Your task to perform on an android device: turn on sleep mode Image 0: 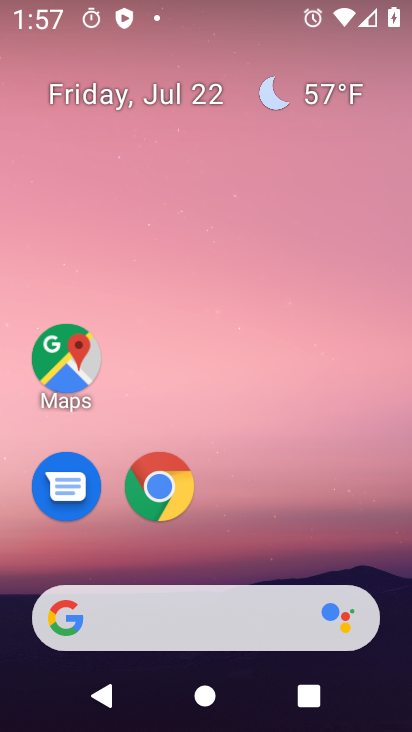
Step 0: drag from (361, 519) to (363, 143)
Your task to perform on an android device: turn on sleep mode Image 1: 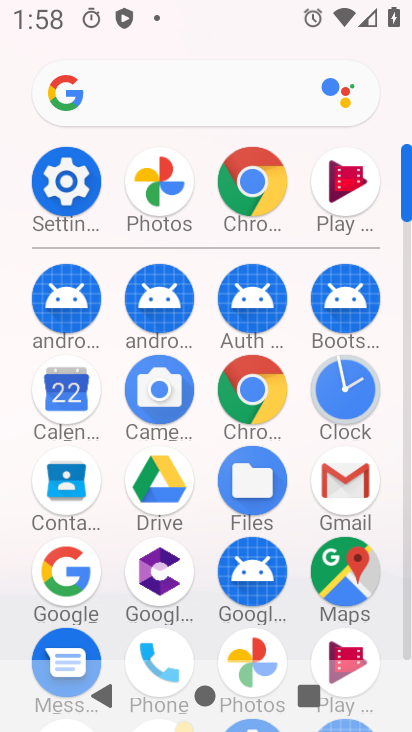
Step 1: click (80, 192)
Your task to perform on an android device: turn on sleep mode Image 2: 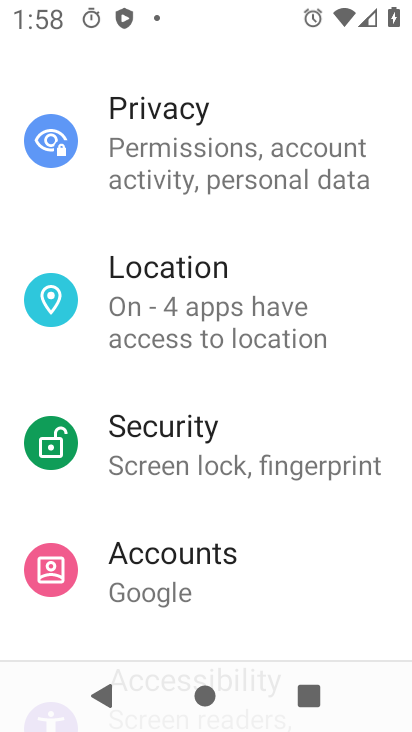
Step 2: drag from (333, 242) to (346, 313)
Your task to perform on an android device: turn on sleep mode Image 3: 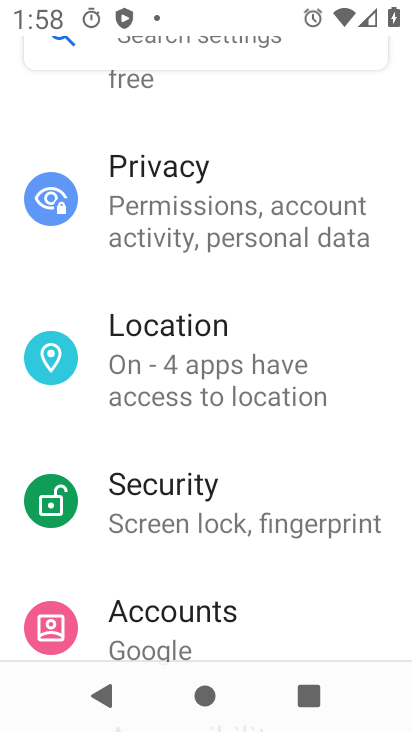
Step 3: drag from (378, 187) to (385, 276)
Your task to perform on an android device: turn on sleep mode Image 4: 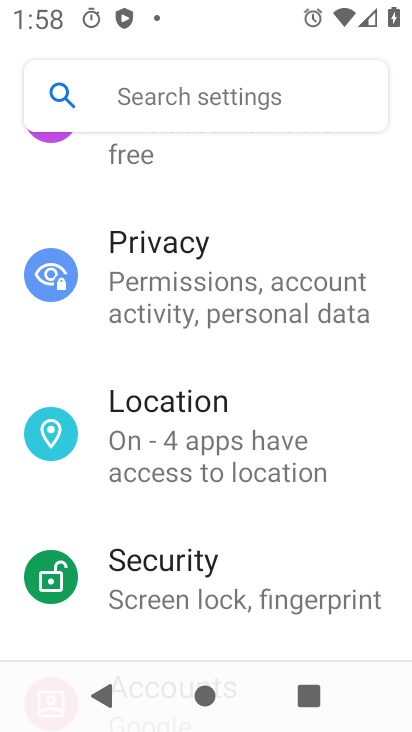
Step 4: drag from (378, 174) to (372, 264)
Your task to perform on an android device: turn on sleep mode Image 5: 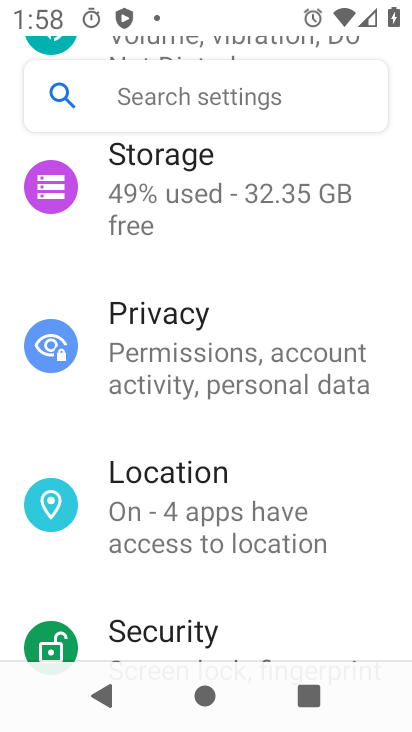
Step 5: drag from (377, 175) to (380, 270)
Your task to perform on an android device: turn on sleep mode Image 6: 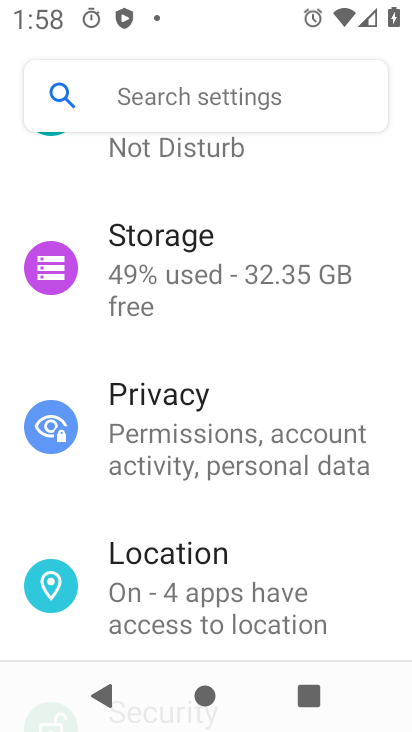
Step 6: drag from (372, 190) to (368, 292)
Your task to perform on an android device: turn on sleep mode Image 7: 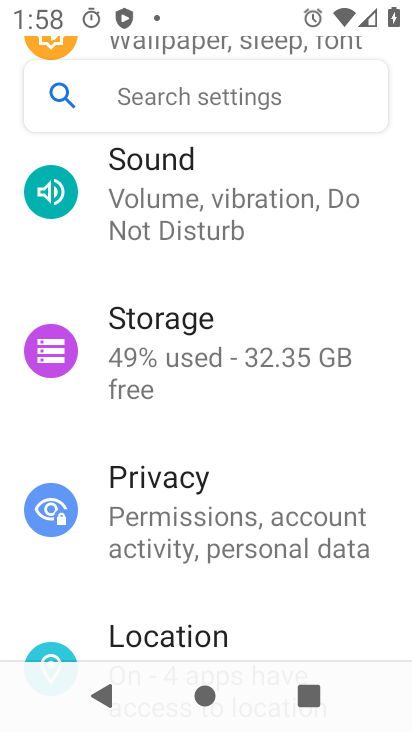
Step 7: drag from (373, 203) to (374, 278)
Your task to perform on an android device: turn on sleep mode Image 8: 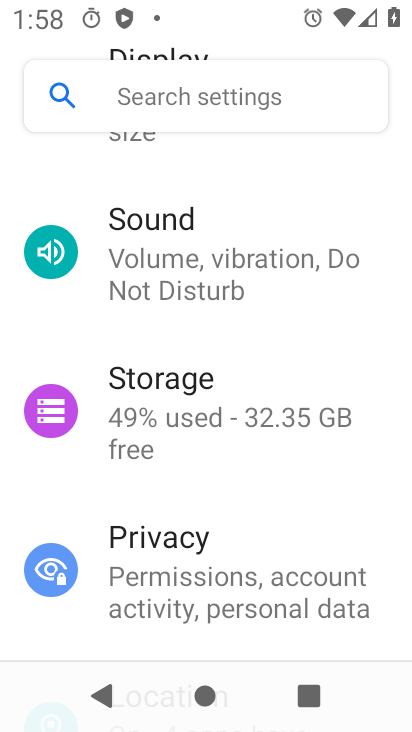
Step 8: drag from (375, 181) to (374, 278)
Your task to perform on an android device: turn on sleep mode Image 9: 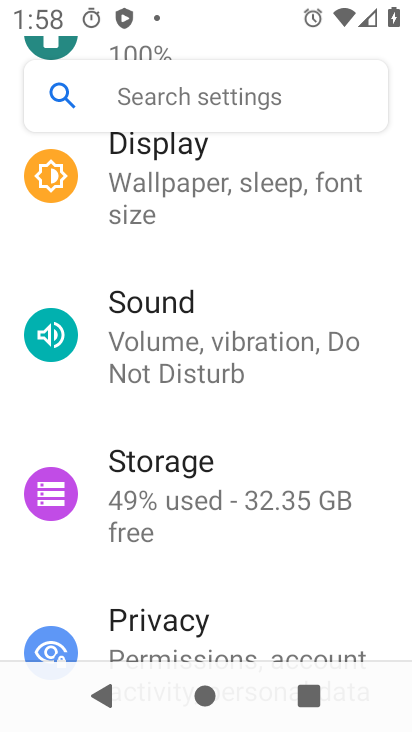
Step 9: drag from (378, 164) to (378, 269)
Your task to perform on an android device: turn on sleep mode Image 10: 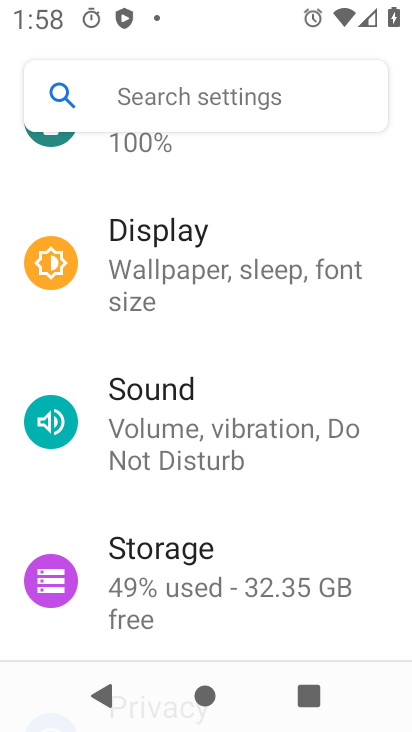
Step 10: drag from (374, 180) to (371, 297)
Your task to perform on an android device: turn on sleep mode Image 11: 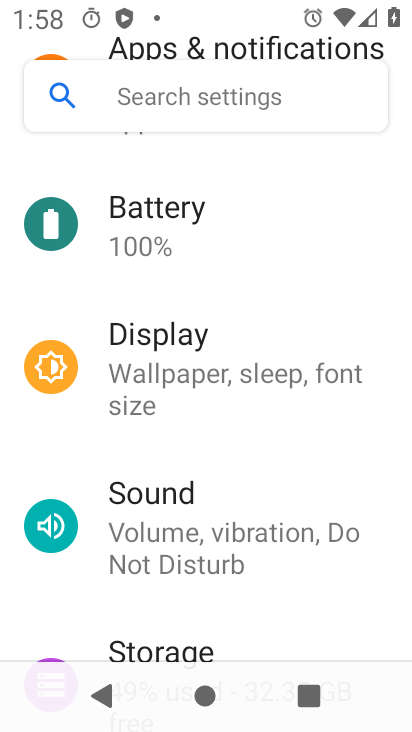
Step 11: click (345, 368)
Your task to perform on an android device: turn on sleep mode Image 12: 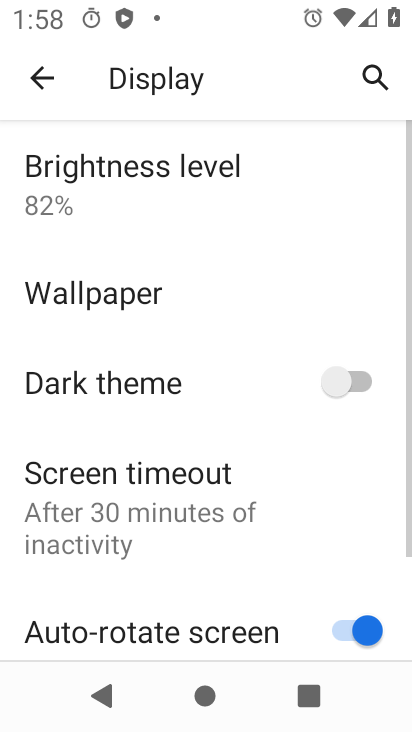
Step 12: drag from (292, 416) to (296, 335)
Your task to perform on an android device: turn on sleep mode Image 13: 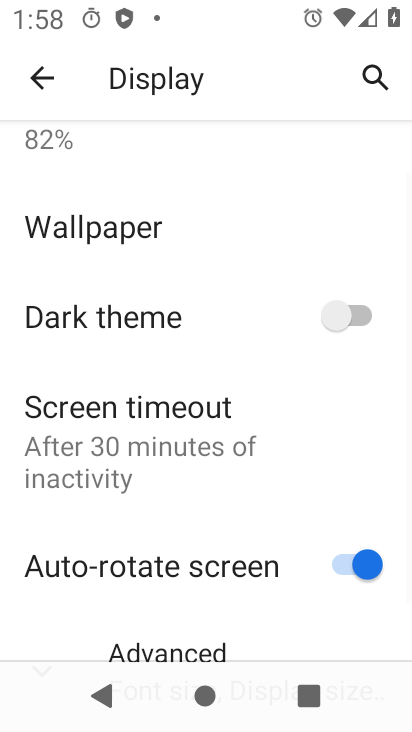
Step 13: drag from (296, 401) to (297, 309)
Your task to perform on an android device: turn on sleep mode Image 14: 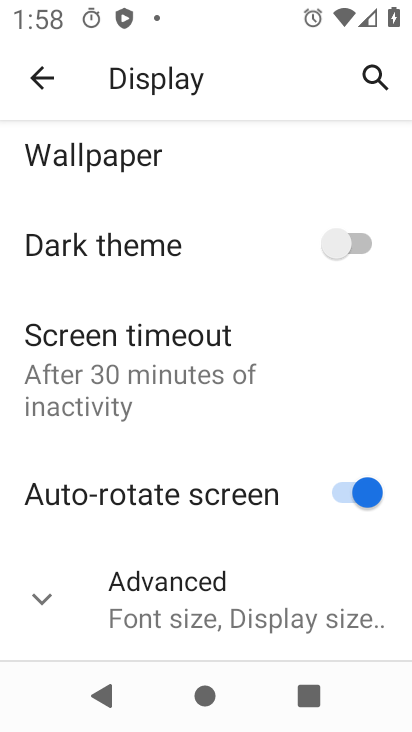
Step 14: drag from (284, 402) to (283, 321)
Your task to perform on an android device: turn on sleep mode Image 15: 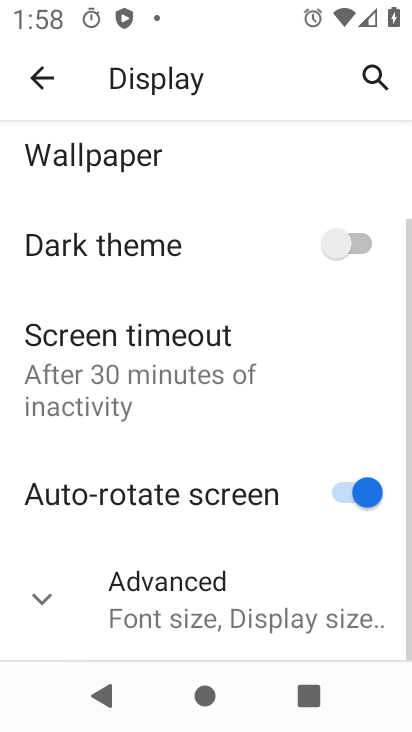
Step 15: click (273, 569)
Your task to perform on an android device: turn on sleep mode Image 16: 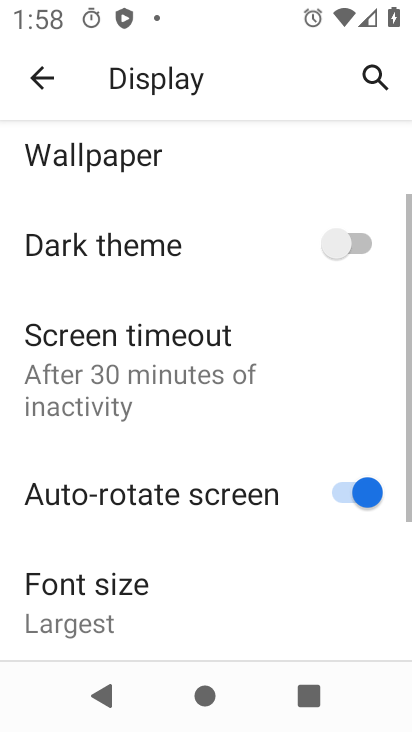
Step 16: task complete